Your task to perform on an android device: turn on location history Image 0: 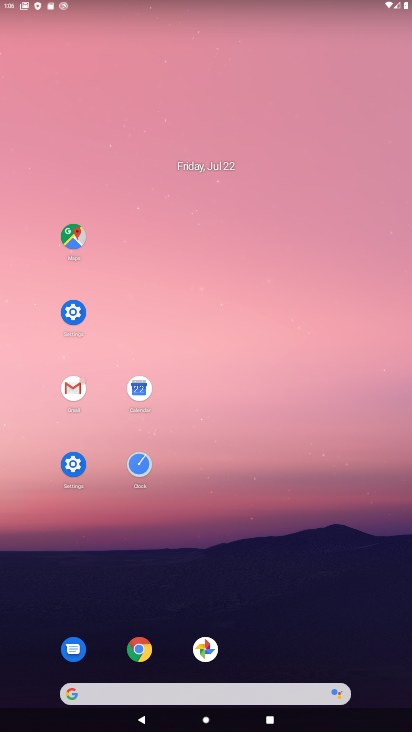
Step 0: click (74, 239)
Your task to perform on an android device: turn on location history Image 1: 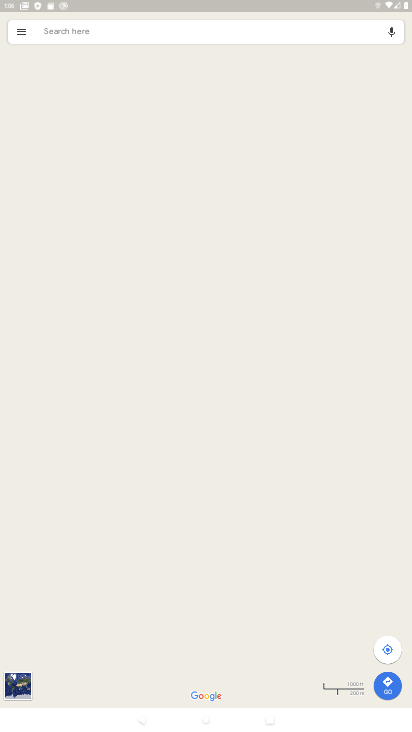
Step 1: click (19, 28)
Your task to perform on an android device: turn on location history Image 2: 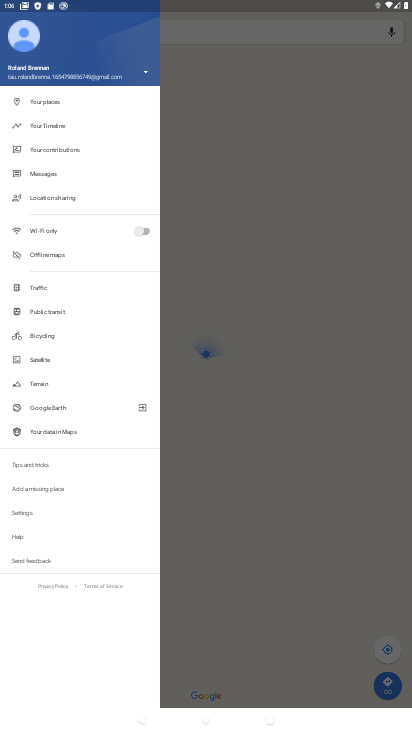
Step 2: click (47, 120)
Your task to perform on an android device: turn on location history Image 3: 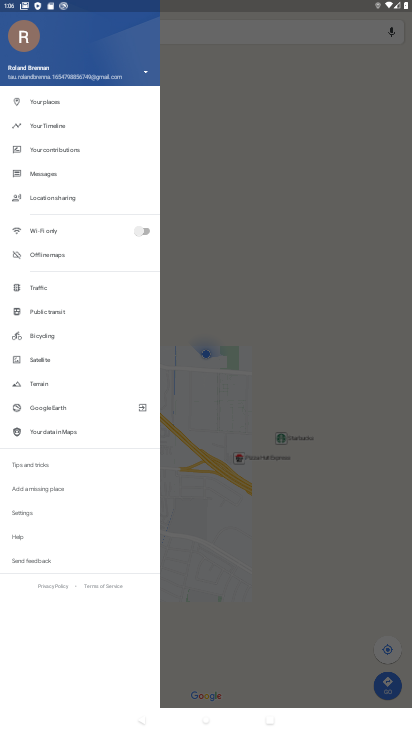
Step 3: click (47, 125)
Your task to perform on an android device: turn on location history Image 4: 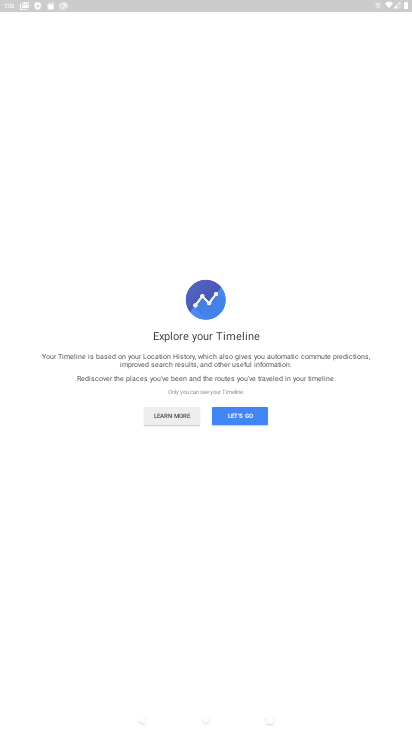
Step 4: click (237, 416)
Your task to perform on an android device: turn on location history Image 5: 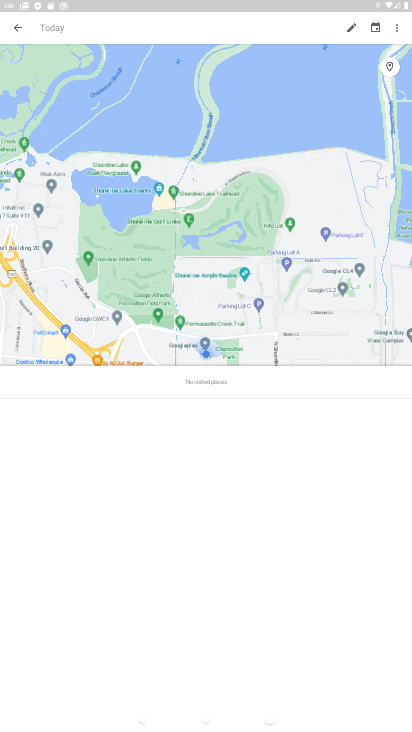
Step 5: click (394, 27)
Your task to perform on an android device: turn on location history Image 6: 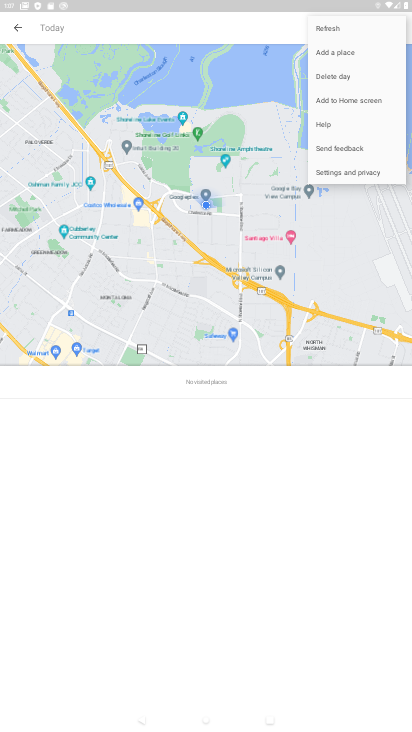
Step 6: click (350, 170)
Your task to perform on an android device: turn on location history Image 7: 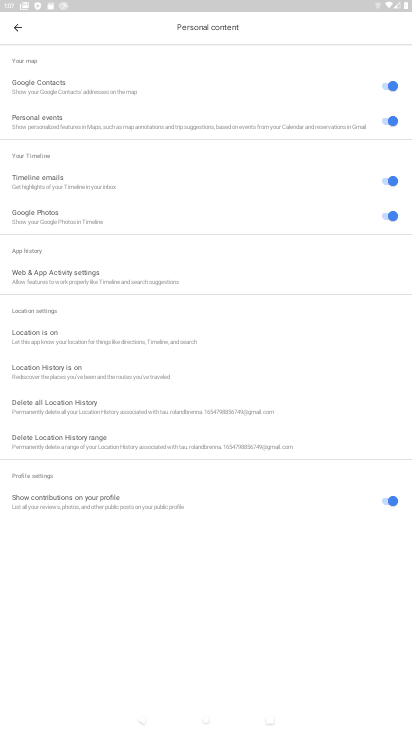
Step 7: click (49, 366)
Your task to perform on an android device: turn on location history Image 8: 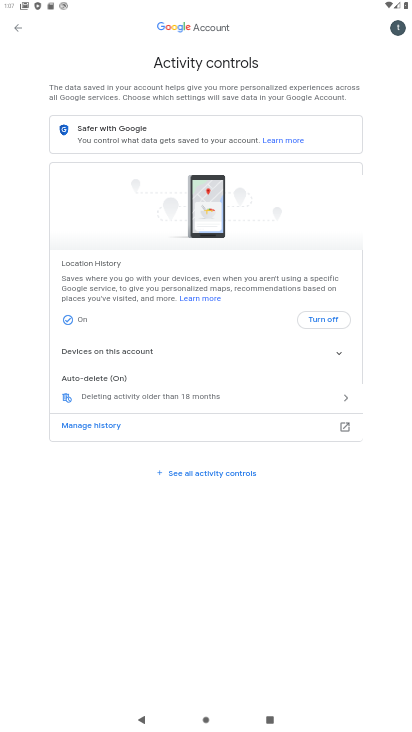
Step 8: task complete